Your task to perform on an android device: Open Chrome and go to the settings page Image 0: 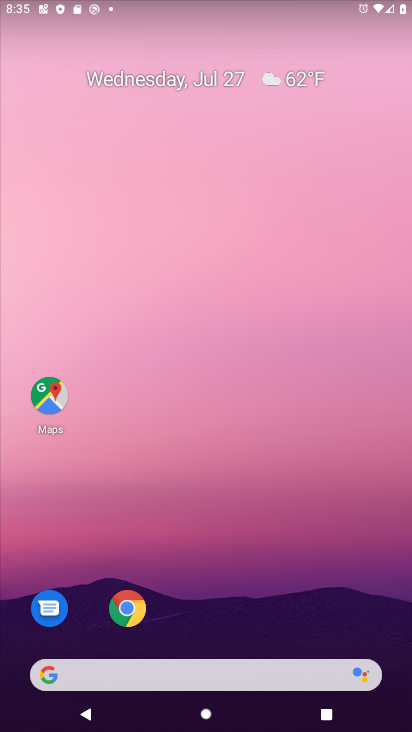
Step 0: drag from (236, 596) to (303, 167)
Your task to perform on an android device: Open Chrome and go to the settings page Image 1: 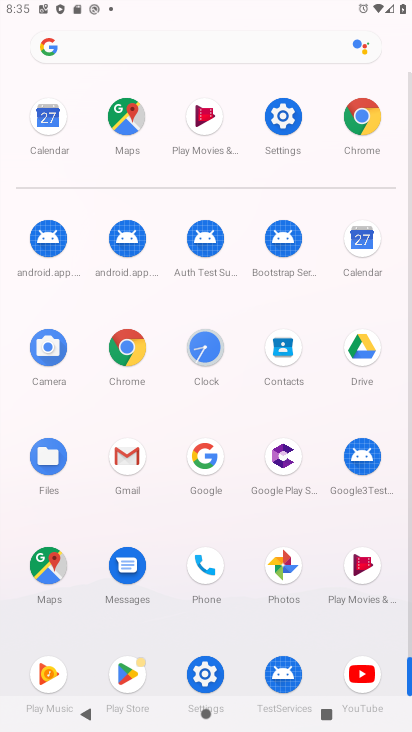
Step 1: click (128, 337)
Your task to perform on an android device: Open Chrome and go to the settings page Image 2: 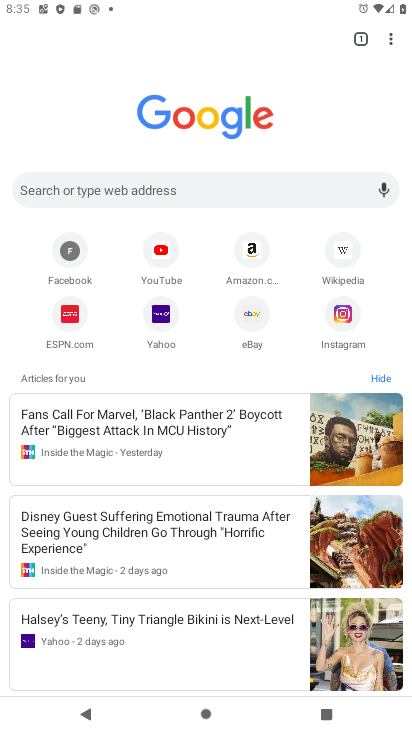
Step 2: click (389, 42)
Your task to perform on an android device: Open Chrome and go to the settings page Image 3: 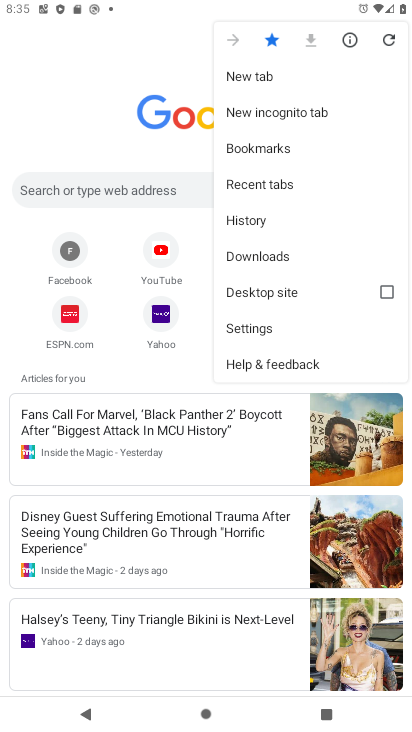
Step 3: click (265, 327)
Your task to perform on an android device: Open Chrome and go to the settings page Image 4: 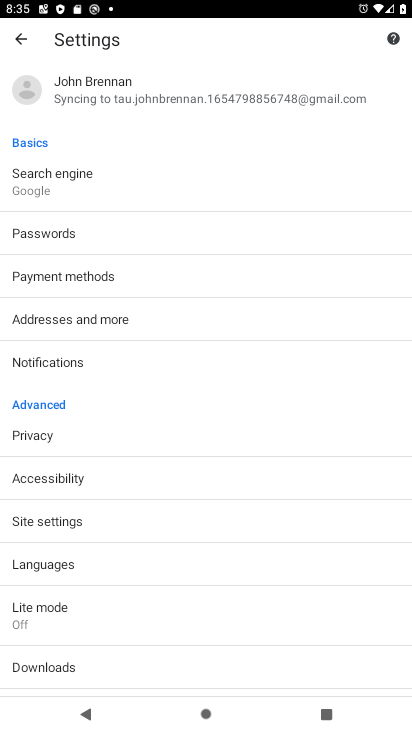
Step 4: task complete